Your task to perform on an android device: Search for seafood restaurants on Google Maps Image 0: 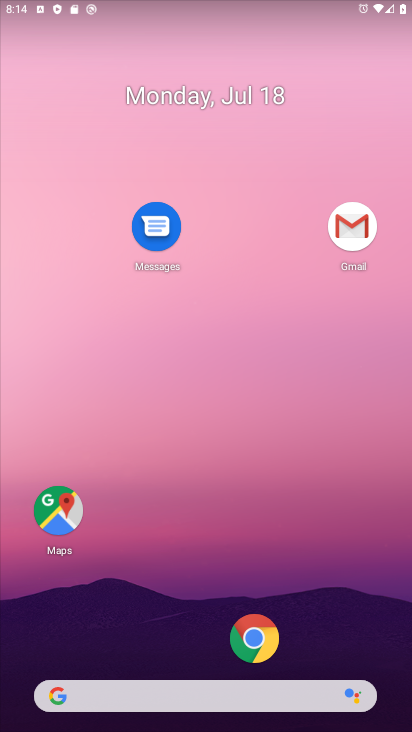
Step 0: press home button
Your task to perform on an android device: Search for seafood restaurants on Google Maps Image 1: 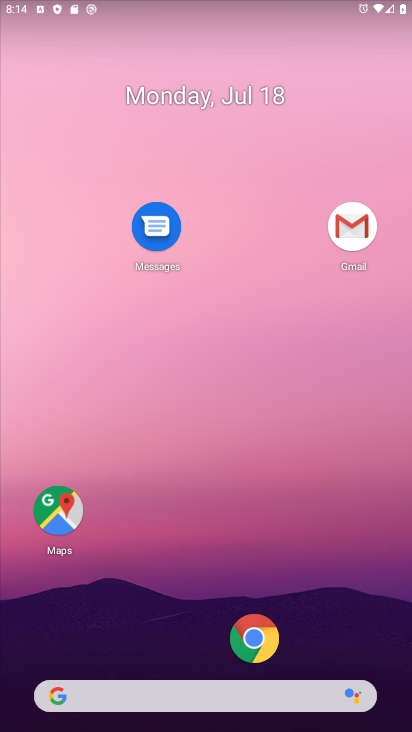
Step 1: click (52, 513)
Your task to perform on an android device: Search for seafood restaurants on Google Maps Image 2: 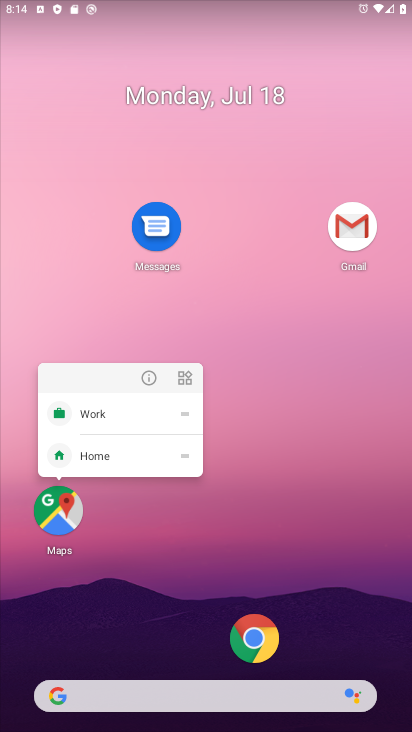
Step 2: click (59, 507)
Your task to perform on an android device: Search for seafood restaurants on Google Maps Image 3: 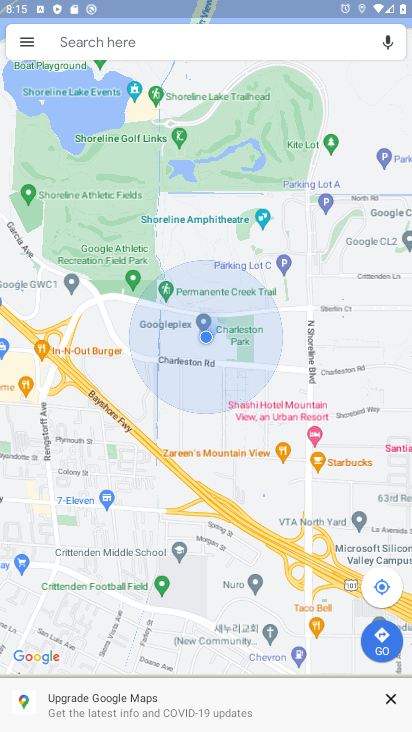
Step 3: click (94, 36)
Your task to perform on an android device: Search for seafood restaurants on Google Maps Image 4: 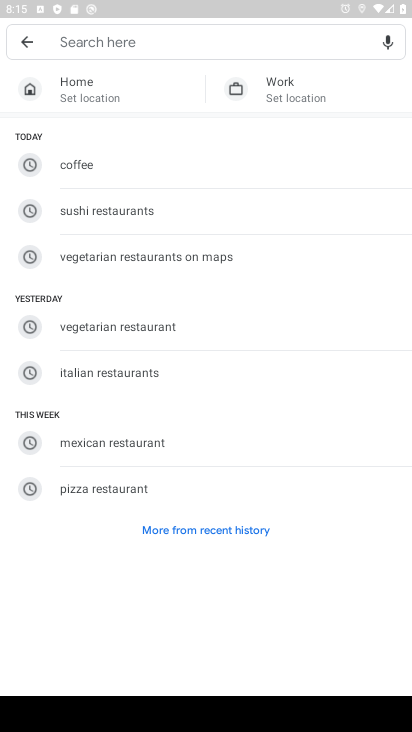
Step 4: type "seafood"
Your task to perform on an android device: Search for seafood restaurants on Google Maps Image 5: 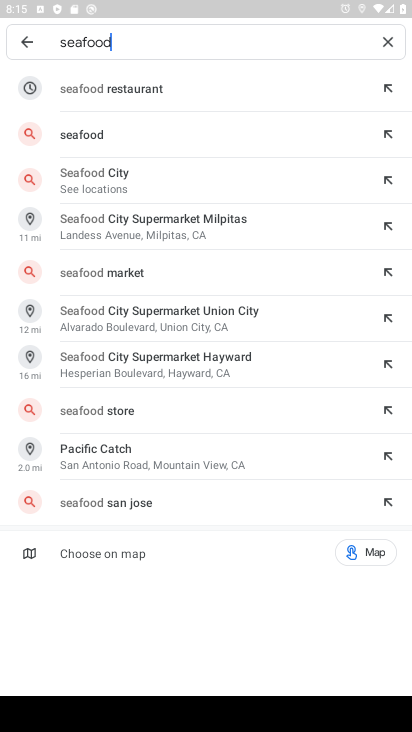
Step 5: click (141, 96)
Your task to perform on an android device: Search for seafood restaurants on Google Maps Image 6: 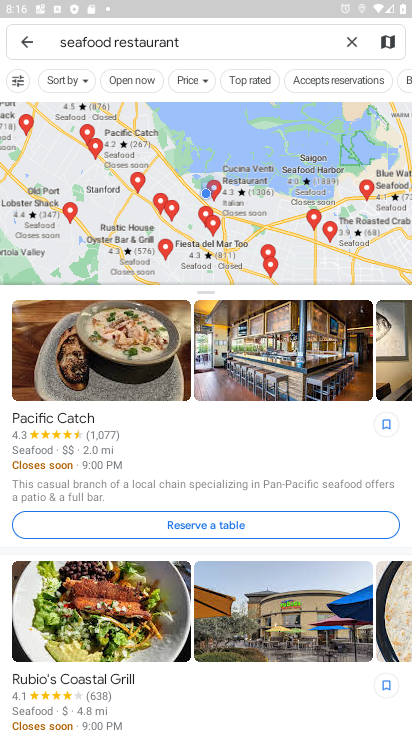
Step 6: task complete